Your task to perform on an android device: toggle pop-ups in chrome Image 0: 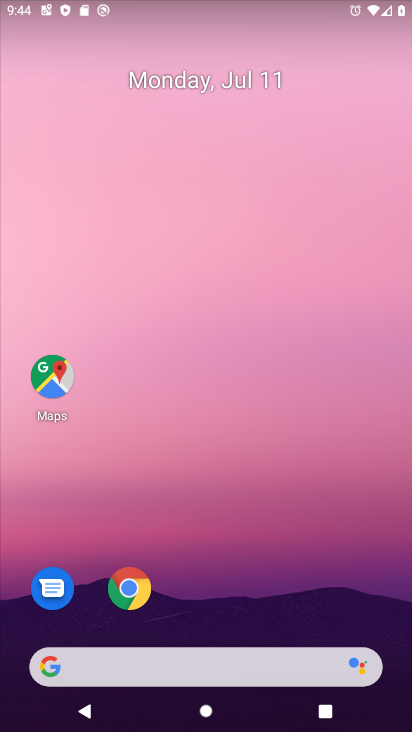
Step 0: click (129, 583)
Your task to perform on an android device: toggle pop-ups in chrome Image 1: 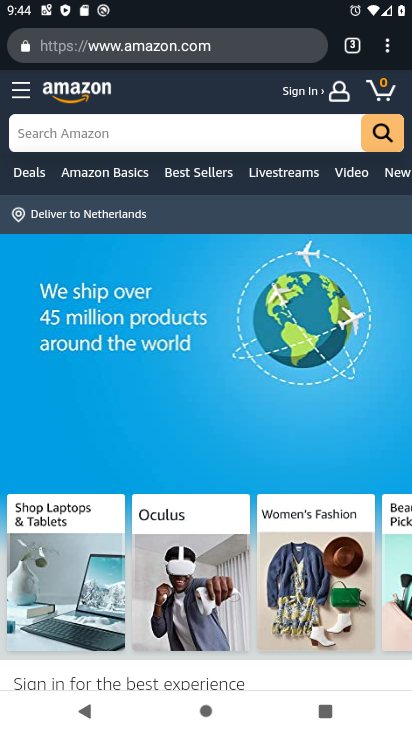
Step 1: drag from (382, 39) to (204, 553)
Your task to perform on an android device: toggle pop-ups in chrome Image 2: 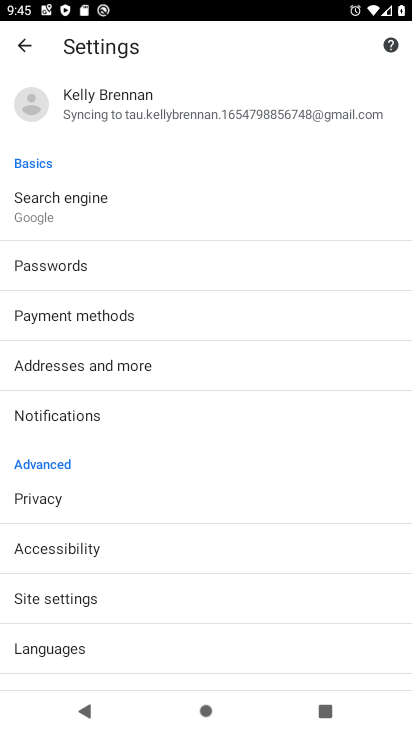
Step 2: click (90, 601)
Your task to perform on an android device: toggle pop-ups in chrome Image 3: 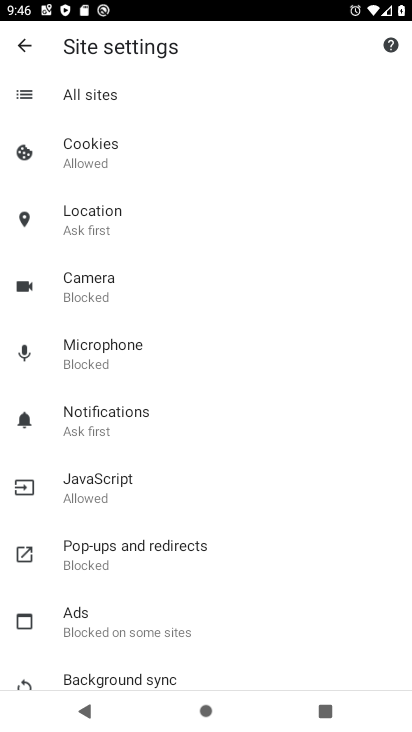
Step 3: click (136, 525)
Your task to perform on an android device: toggle pop-ups in chrome Image 4: 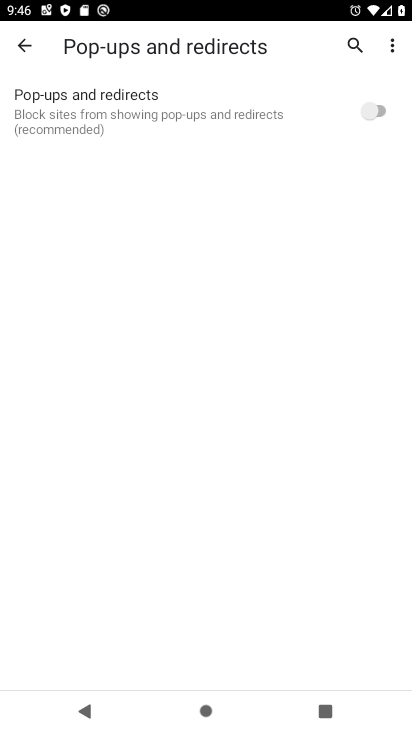
Step 4: click (378, 108)
Your task to perform on an android device: toggle pop-ups in chrome Image 5: 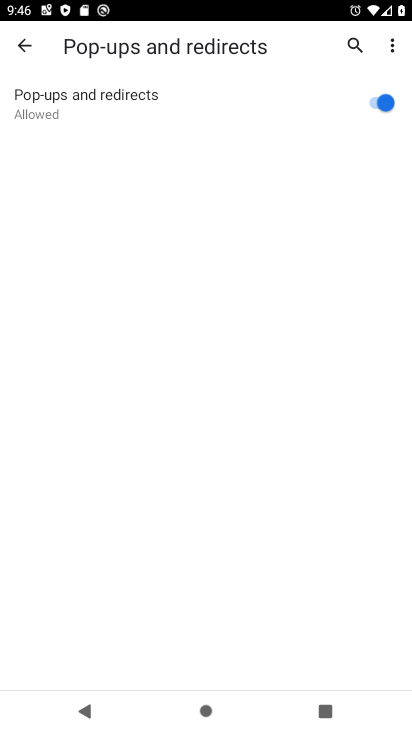
Step 5: task complete